Your task to perform on an android device: Go to display settings Image 0: 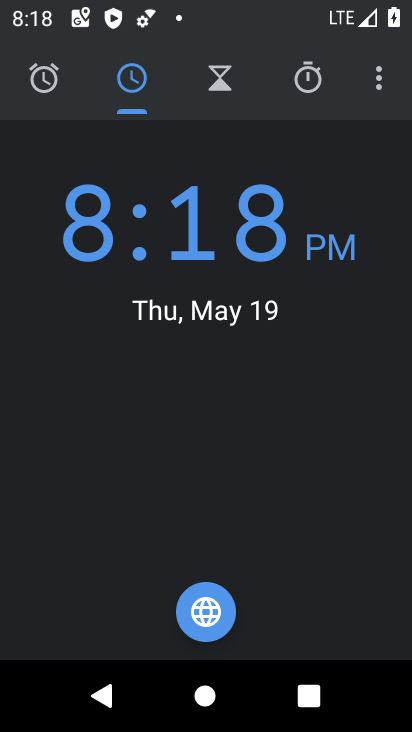
Step 0: press home button
Your task to perform on an android device: Go to display settings Image 1: 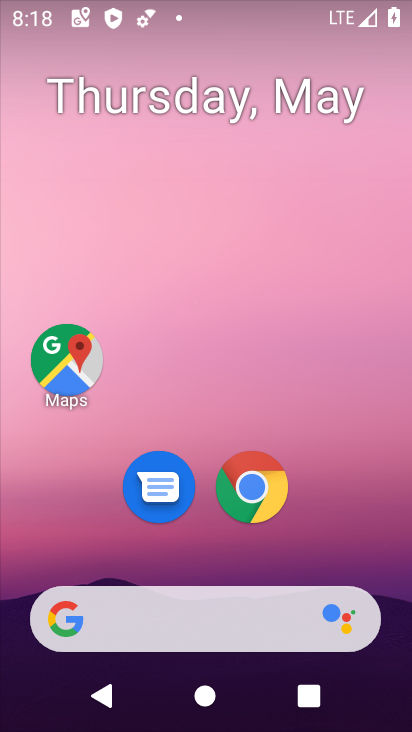
Step 1: drag from (203, 560) to (262, 171)
Your task to perform on an android device: Go to display settings Image 2: 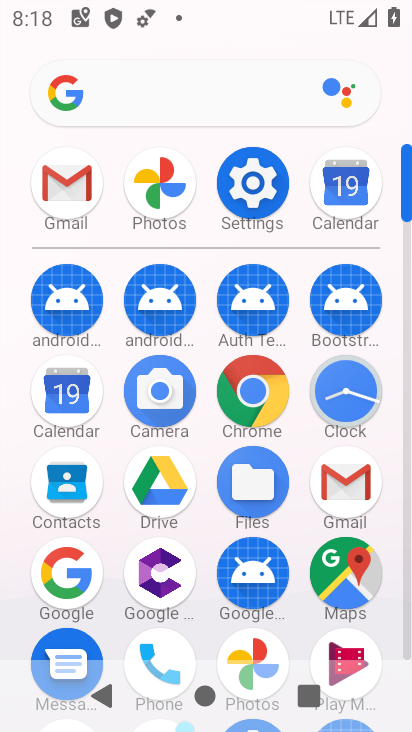
Step 2: click (250, 176)
Your task to perform on an android device: Go to display settings Image 3: 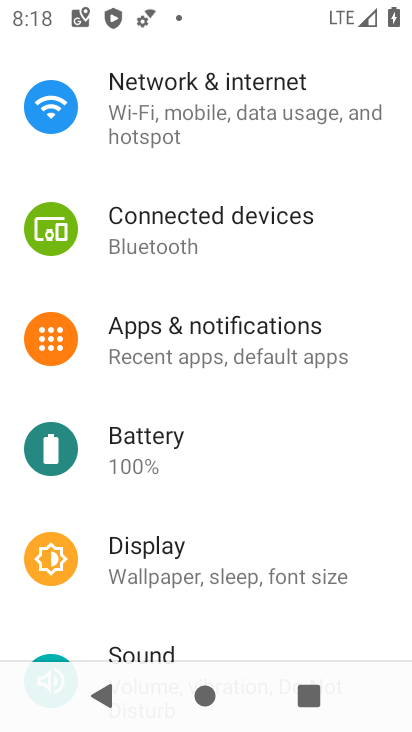
Step 3: click (150, 571)
Your task to perform on an android device: Go to display settings Image 4: 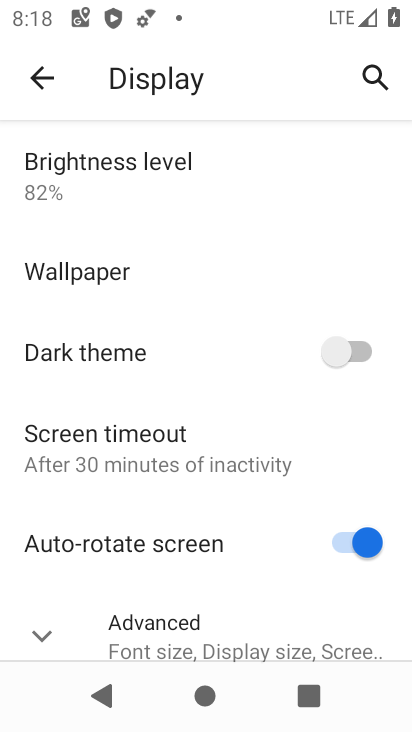
Step 4: task complete